Your task to perform on an android device: Show the shopping cart on bestbuy.com. Search for razer nari on bestbuy.com, select the first entry, add it to the cart, then select checkout. Image 0: 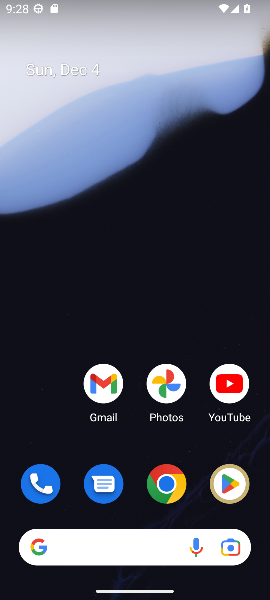
Step 0: click (168, 488)
Your task to perform on an android device: Show the shopping cart on bestbuy.com. Search for razer nari on bestbuy.com, select the first entry, add it to the cart, then select checkout. Image 1: 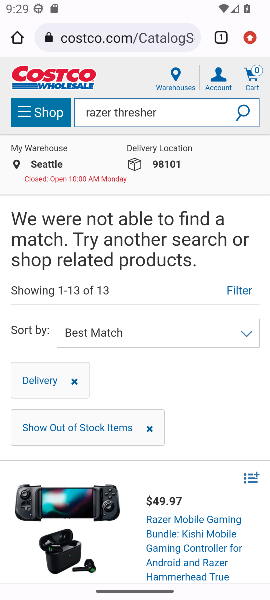
Step 1: click (118, 38)
Your task to perform on an android device: Show the shopping cart on bestbuy.com. Search for razer nari on bestbuy.com, select the first entry, add it to the cart, then select checkout. Image 2: 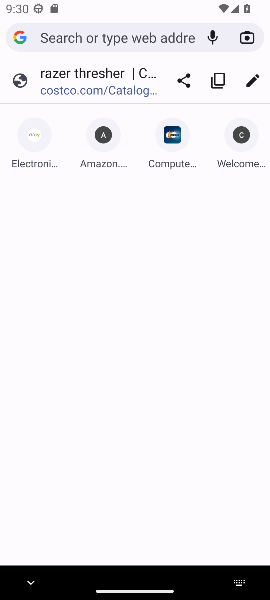
Step 2: type "bestbuy.com"
Your task to perform on an android device: Show the shopping cart on bestbuy.com. Search for razer nari on bestbuy.com, select the first entry, add it to the cart, then select checkout. Image 3: 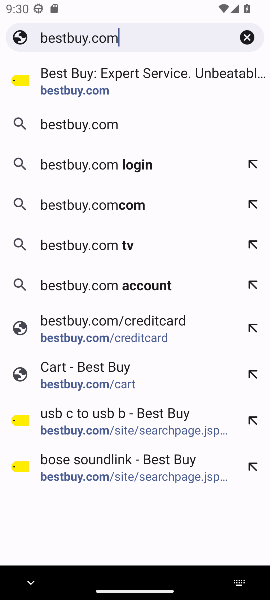
Step 3: click (42, 97)
Your task to perform on an android device: Show the shopping cart on bestbuy.com. Search for razer nari on bestbuy.com, select the first entry, add it to the cart, then select checkout. Image 4: 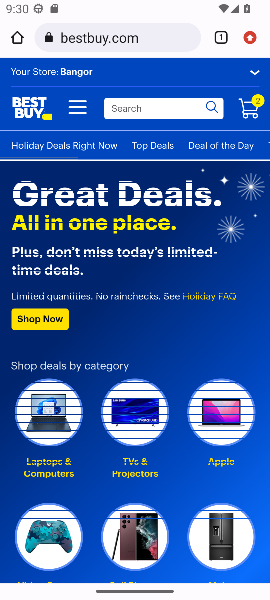
Step 4: click (251, 112)
Your task to perform on an android device: Show the shopping cart on bestbuy.com. Search for razer nari on bestbuy.com, select the first entry, add it to the cart, then select checkout. Image 5: 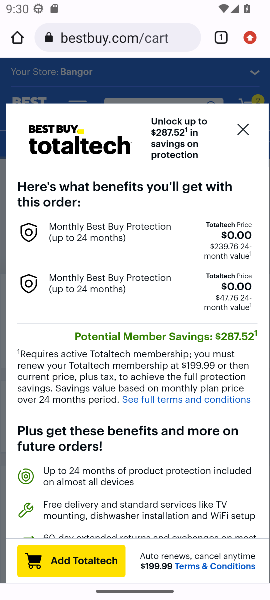
Step 5: click (247, 130)
Your task to perform on an android device: Show the shopping cart on bestbuy.com. Search for razer nari on bestbuy.com, select the first entry, add it to the cart, then select checkout. Image 6: 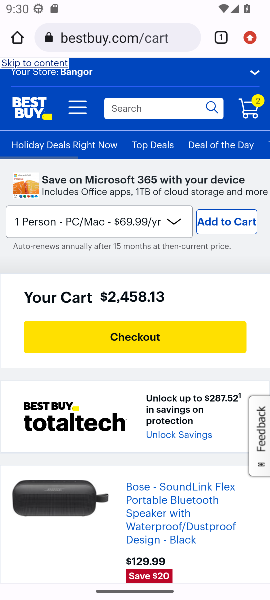
Step 6: click (139, 101)
Your task to perform on an android device: Show the shopping cart on bestbuy.com. Search for razer nari on bestbuy.com, select the first entry, add it to the cart, then select checkout. Image 7: 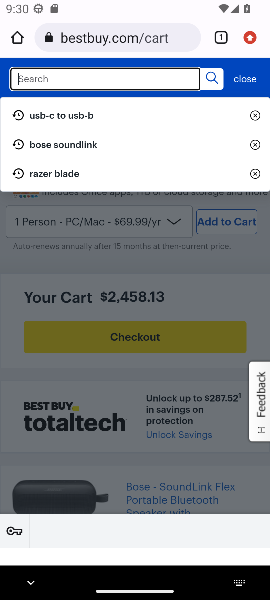
Step 7: type " razer nari"
Your task to perform on an android device: Show the shopping cart on bestbuy.com. Search for razer nari on bestbuy.com, select the first entry, add it to the cart, then select checkout. Image 8: 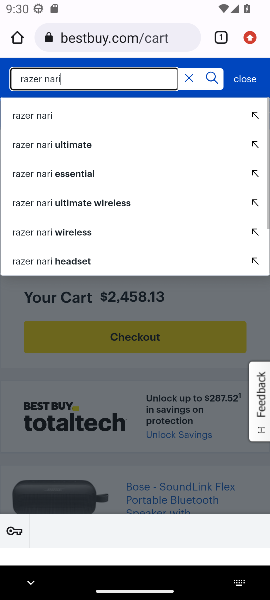
Step 8: click (23, 120)
Your task to perform on an android device: Show the shopping cart on bestbuy.com. Search for razer nari on bestbuy.com, select the first entry, add it to the cart, then select checkout. Image 9: 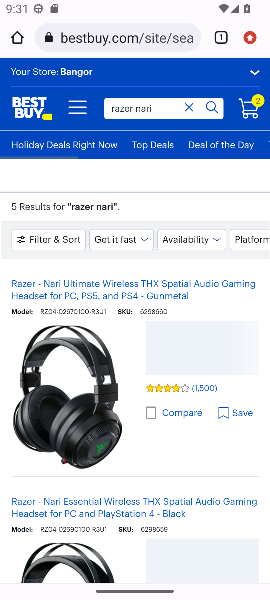
Step 9: click (85, 381)
Your task to perform on an android device: Show the shopping cart on bestbuy.com. Search for razer nari on bestbuy.com, select the first entry, add it to the cart, then select checkout. Image 10: 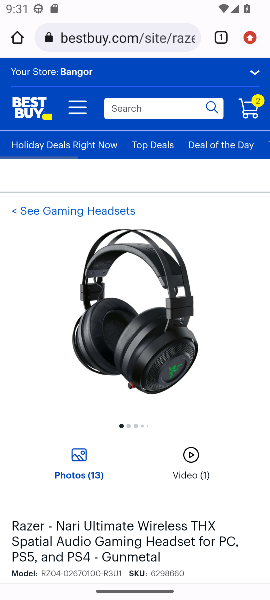
Step 10: drag from (178, 480) to (170, 174)
Your task to perform on an android device: Show the shopping cart on bestbuy.com. Search for razer nari on bestbuy.com, select the first entry, add it to the cart, then select checkout. Image 11: 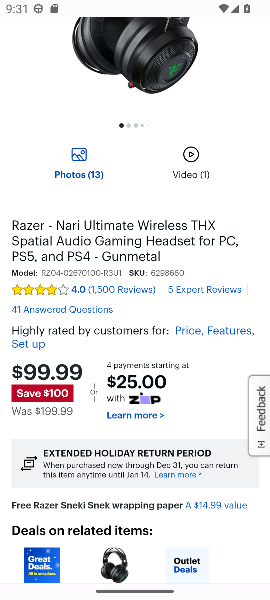
Step 11: drag from (137, 414) to (129, 131)
Your task to perform on an android device: Show the shopping cart on bestbuy.com. Search for razer nari on bestbuy.com, select the first entry, add it to the cart, then select checkout. Image 12: 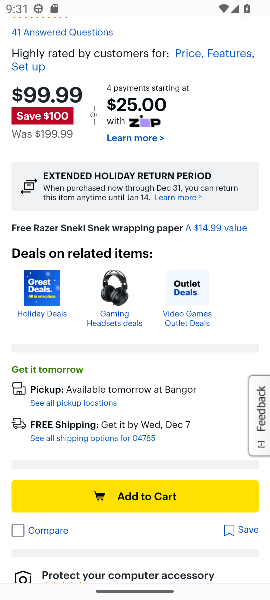
Step 12: click (125, 487)
Your task to perform on an android device: Show the shopping cart on bestbuy.com. Search for razer nari on bestbuy.com, select the first entry, add it to the cart, then select checkout. Image 13: 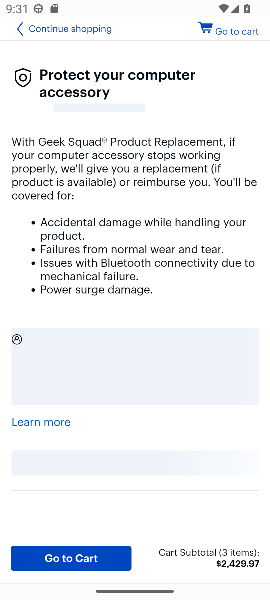
Step 13: click (238, 34)
Your task to perform on an android device: Show the shopping cart on bestbuy.com. Search for razer nari on bestbuy.com, select the first entry, add it to the cart, then select checkout. Image 14: 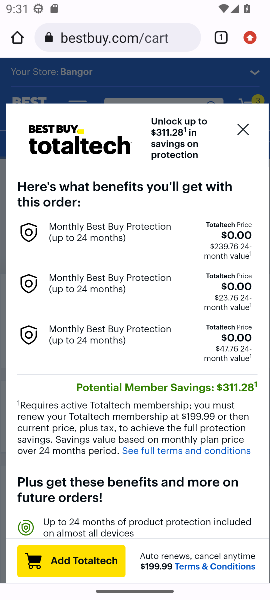
Step 14: click (246, 128)
Your task to perform on an android device: Show the shopping cart on bestbuy.com. Search for razer nari on bestbuy.com, select the first entry, add it to the cart, then select checkout. Image 15: 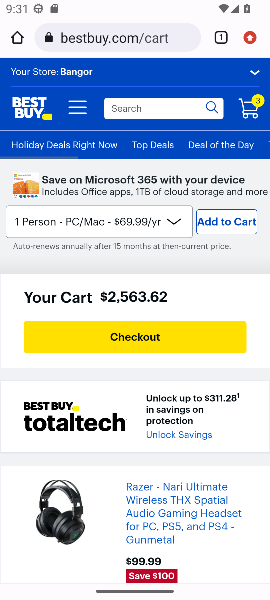
Step 15: click (124, 332)
Your task to perform on an android device: Show the shopping cart on bestbuy.com. Search for razer nari on bestbuy.com, select the first entry, add it to the cart, then select checkout. Image 16: 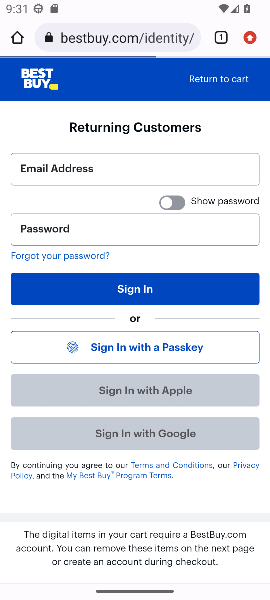
Step 16: task complete